Your task to perform on an android device: turn off smart reply in the gmail app Image 0: 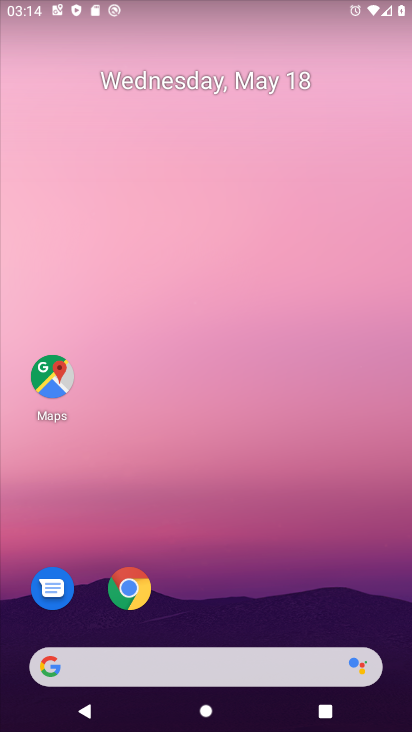
Step 0: drag from (24, 474) to (233, 136)
Your task to perform on an android device: turn off smart reply in the gmail app Image 1: 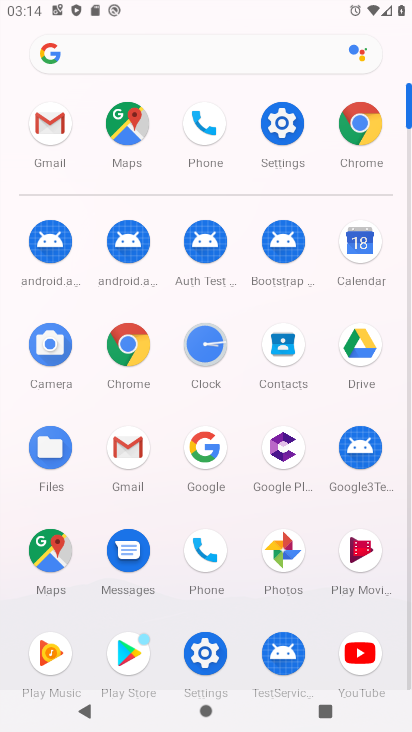
Step 1: click (61, 127)
Your task to perform on an android device: turn off smart reply in the gmail app Image 2: 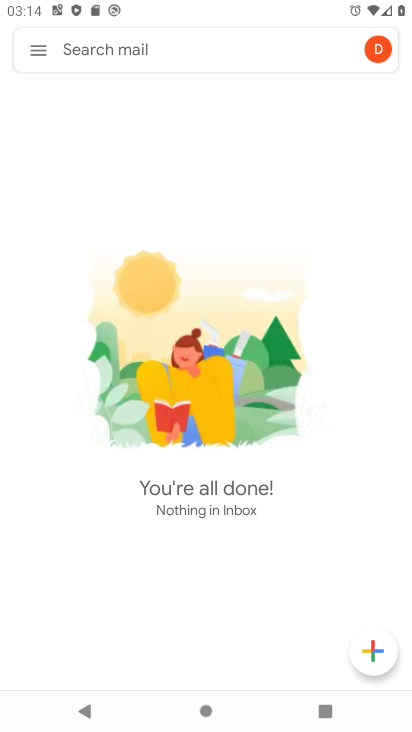
Step 2: click (41, 46)
Your task to perform on an android device: turn off smart reply in the gmail app Image 3: 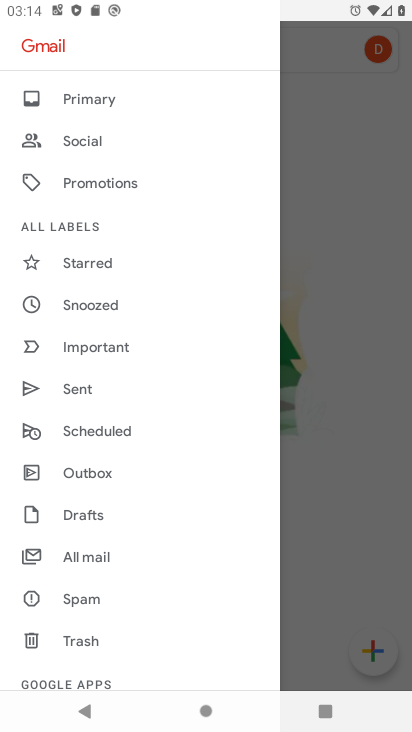
Step 3: drag from (62, 662) to (155, 155)
Your task to perform on an android device: turn off smart reply in the gmail app Image 4: 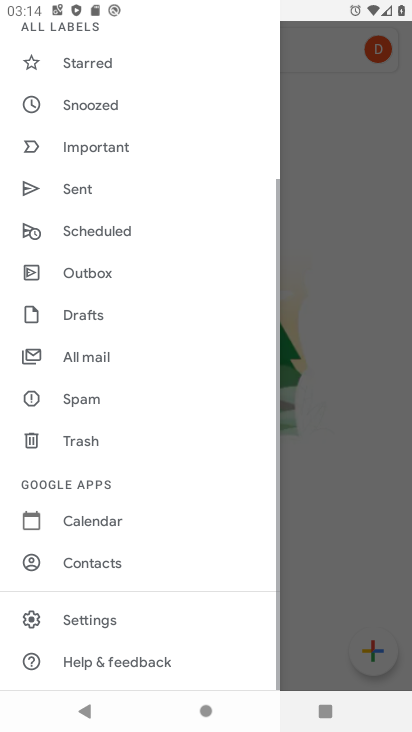
Step 4: click (35, 617)
Your task to perform on an android device: turn off smart reply in the gmail app Image 5: 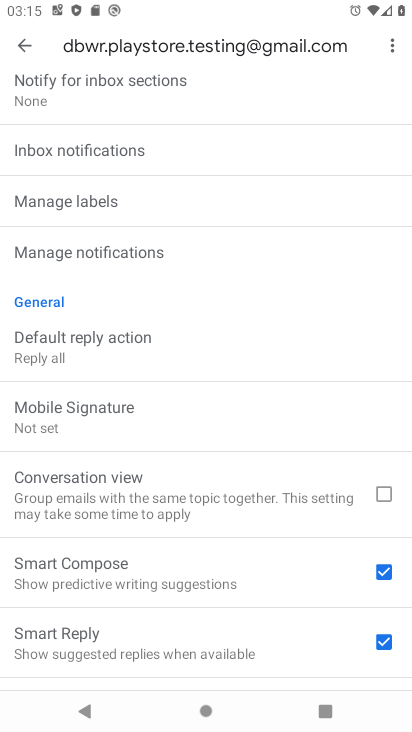
Step 5: drag from (5, 383) to (136, 143)
Your task to perform on an android device: turn off smart reply in the gmail app Image 6: 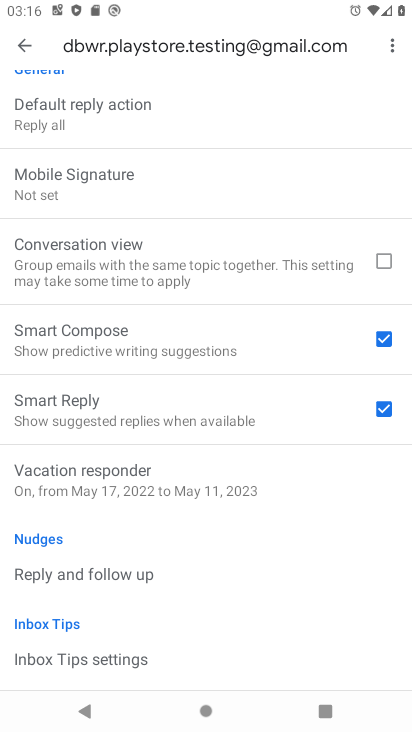
Step 6: click (383, 410)
Your task to perform on an android device: turn off smart reply in the gmail app Image 7: 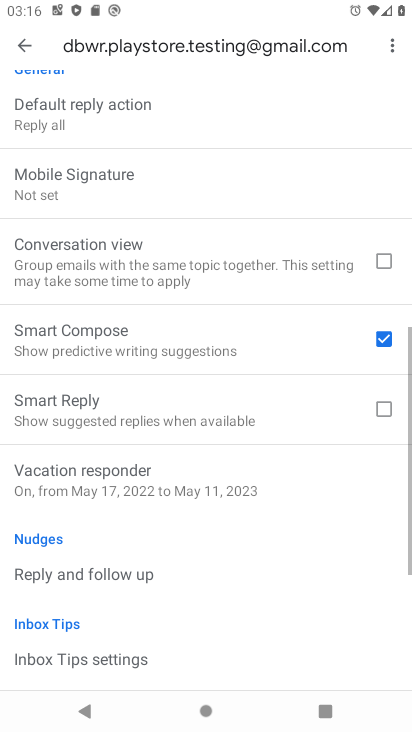
Step 7: task complete